Your task to perform on an android device: Open Chrome and go to settings Image 0: 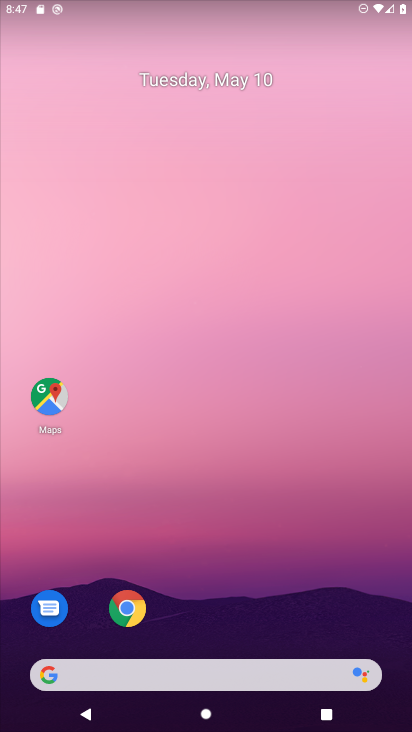
Step 0: drag from (345, 610) to (338, 102)
Your task to perform on an android device: Open Chrome and go to settings Image 1: 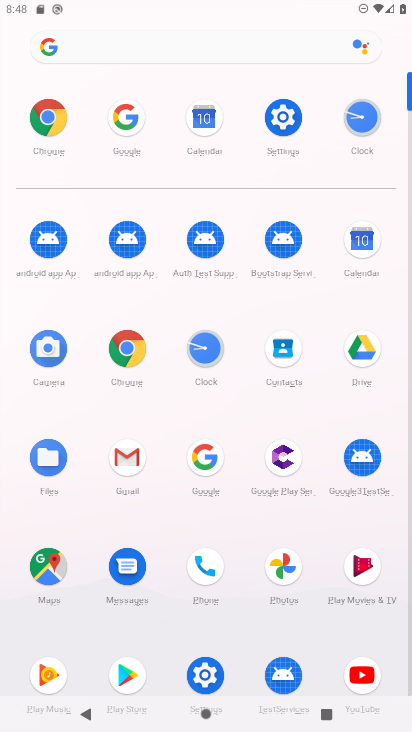
Step 1: click (56, 117)
Your task to perform on an android device: Open Chrome and go to settings Image 2: 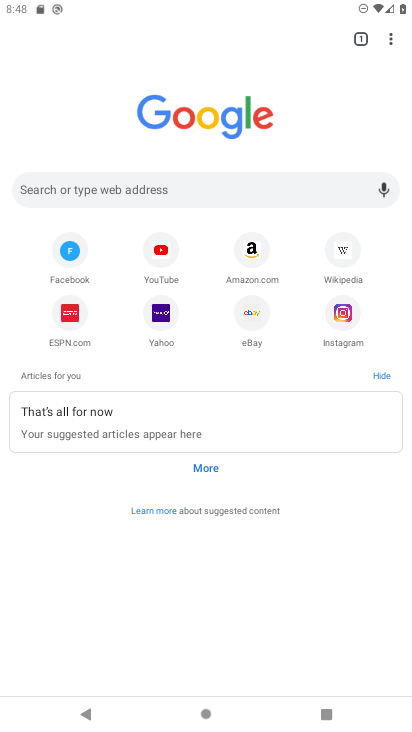
Step 2: click (395, 40)
Your task to perform on an android device: Open Chrome and go to settings Image 3: 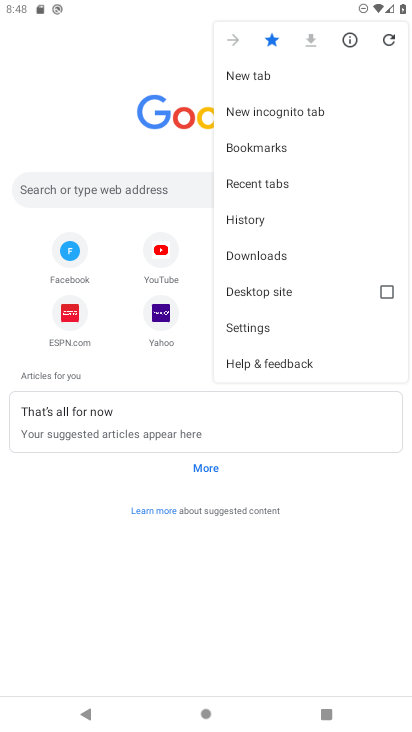
Step 3: click (281, 324)
Your task to perform on an android device: Open Chrome and go to settings Image 4: 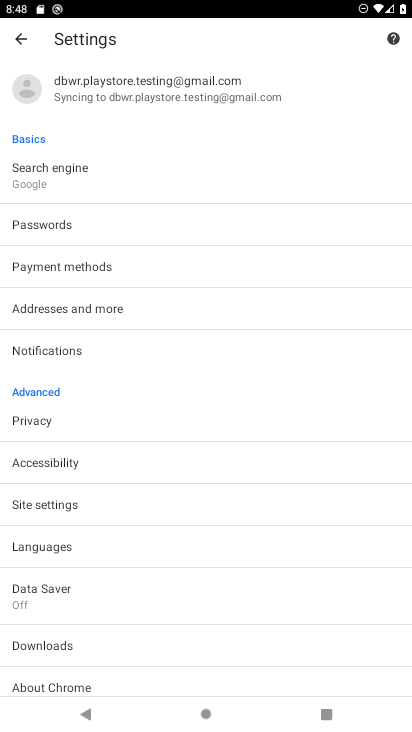
Step 4: task complete